Your task to perform on an android device: Open my contact list Image 0: 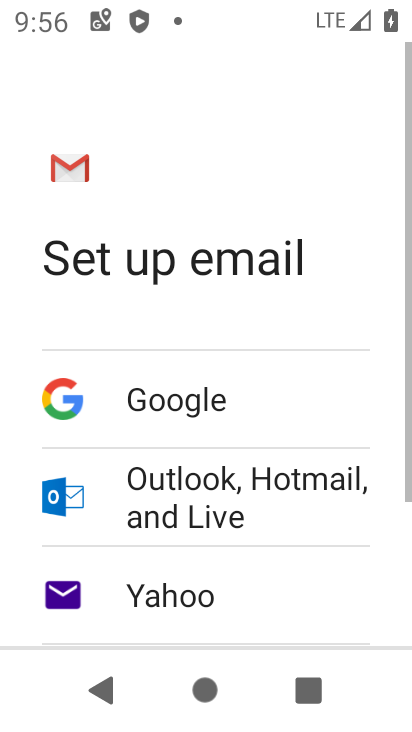
Step 0: press home button
Your task to perform on an android device: Open my contact list Image 1: 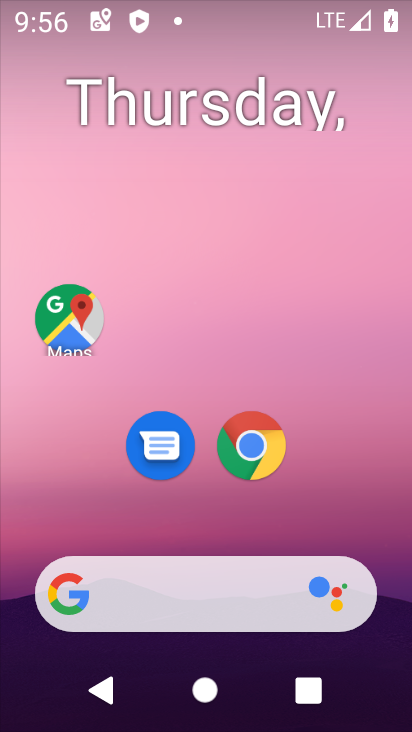
Step 1: drag from (209, 552) to (257, 89)
Your task to perform on an android device: Open my contact list Image 2: 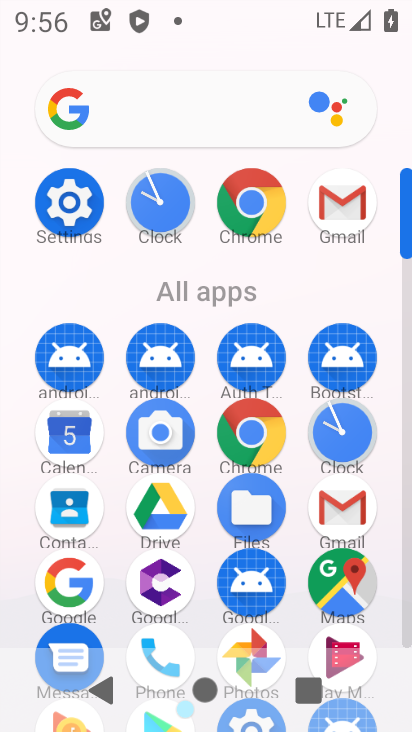
Step 2: click (80, 511)
Your task to perform on an android device: Open my contact list Image 3: 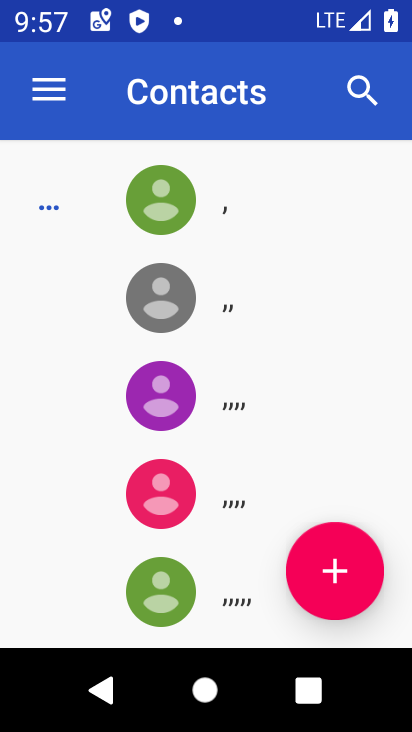
Step 3: task complete